Your task to perform on an android device: uninstall "NewsBreak: Local News & Alerts" Image 0: 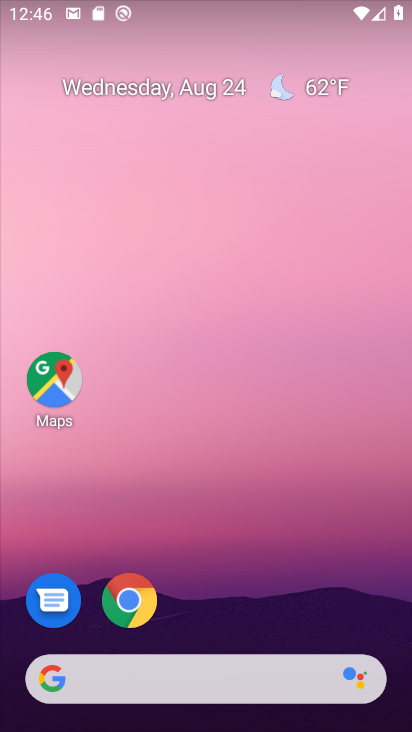
Step 0: drag from (213, 642) to (206, 84)
Your task to perform on an android device: uninstall "NewsBreak: Local News & Alerts" Image 1: 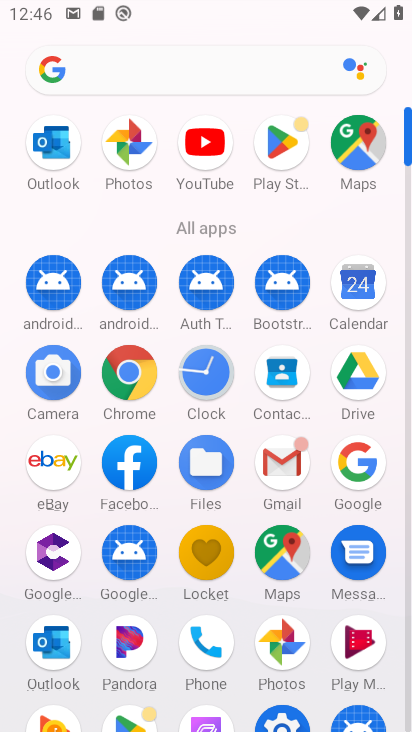
Step 1: click (282, 170)
Your task to perform on an android device: uninstall "NewsBreak: Local News & Alerts" Image 2: 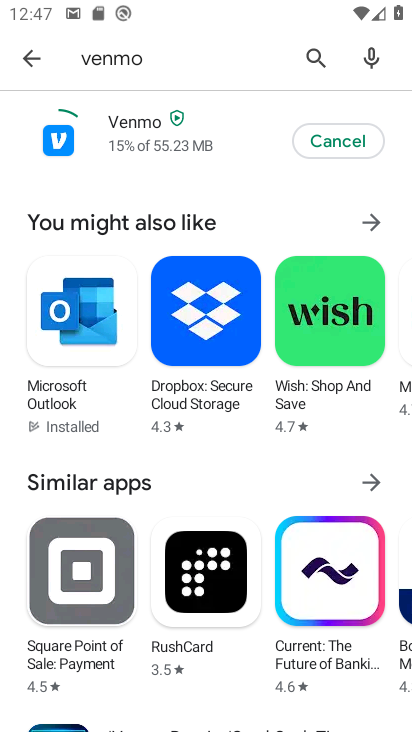
Step 2: click (302, 64)
Your task to perform on an android device: uninstall "NewsBreak: Local News & Alerts" Image 3: 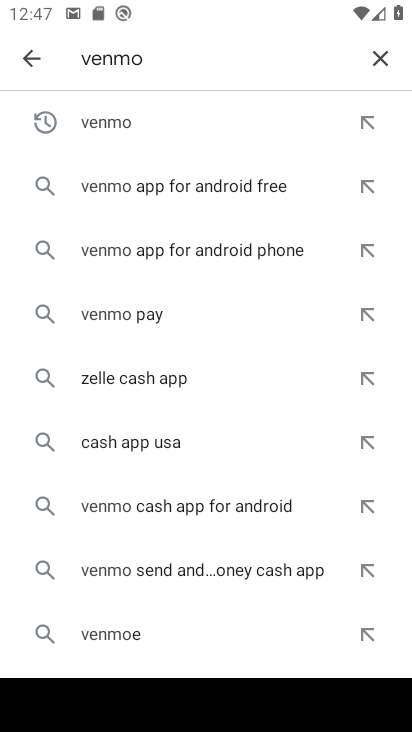
Step 3: click (377, 62)
Your task to perform on an android device: uninstall "NewsBreak: Local News & Alerts" Image 4: 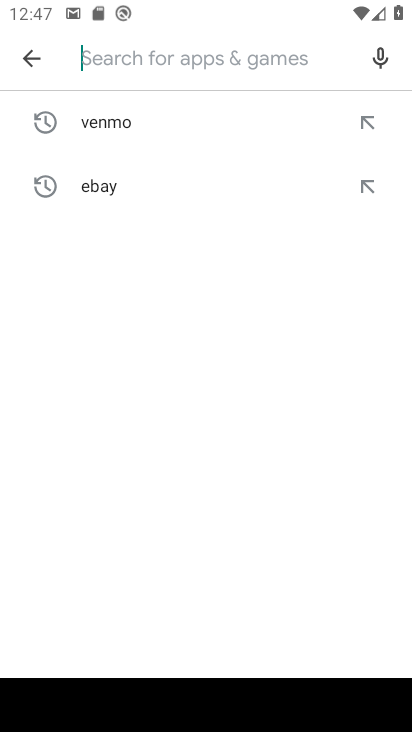
Step 4: type "newbreak"
Your task to perform on an android device: uninstall "NewsBreak: Local News & Alerts" Image 5: 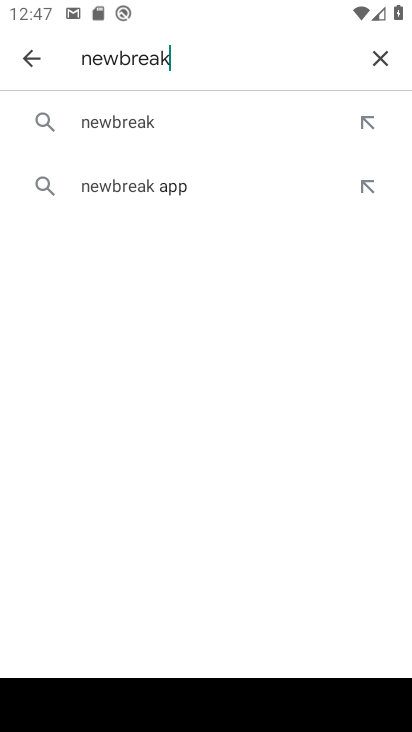
Step 5: click (145, 137)
Your task to perform on an android device: uninstall "NewsBreak: Local News & Alerts" Image 6: 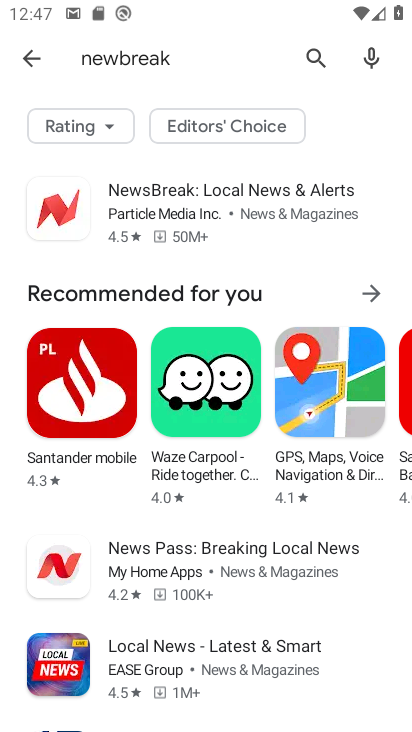
Step 6: click (193, 193)
Your task to perform on an android device: uninstall "NewsBreak: Local News & Alerts" Image 7: 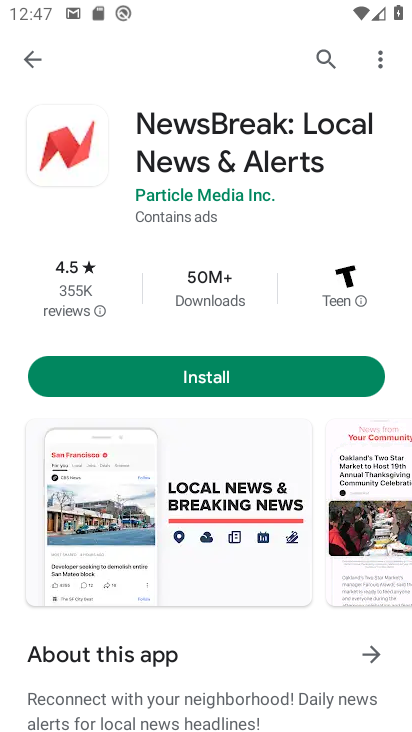
Step 7: click (173, 362)
Your task to perform on an android device: uninstall "NewsBreak: Local News & Alerts" Image 8: 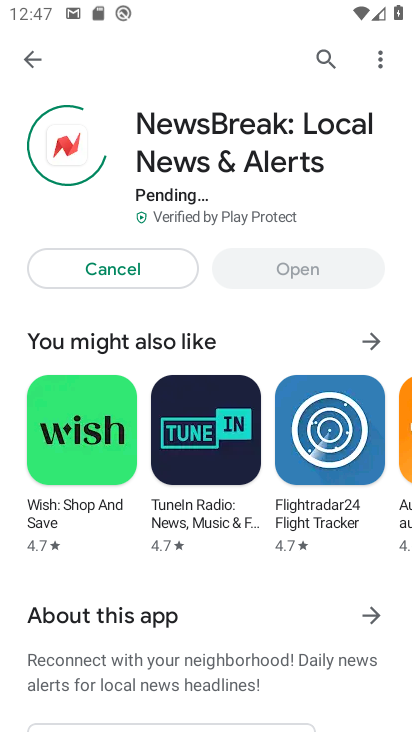
Step 8: task complete